Your task to perform on an android device: change alarm snooze length Image 0: 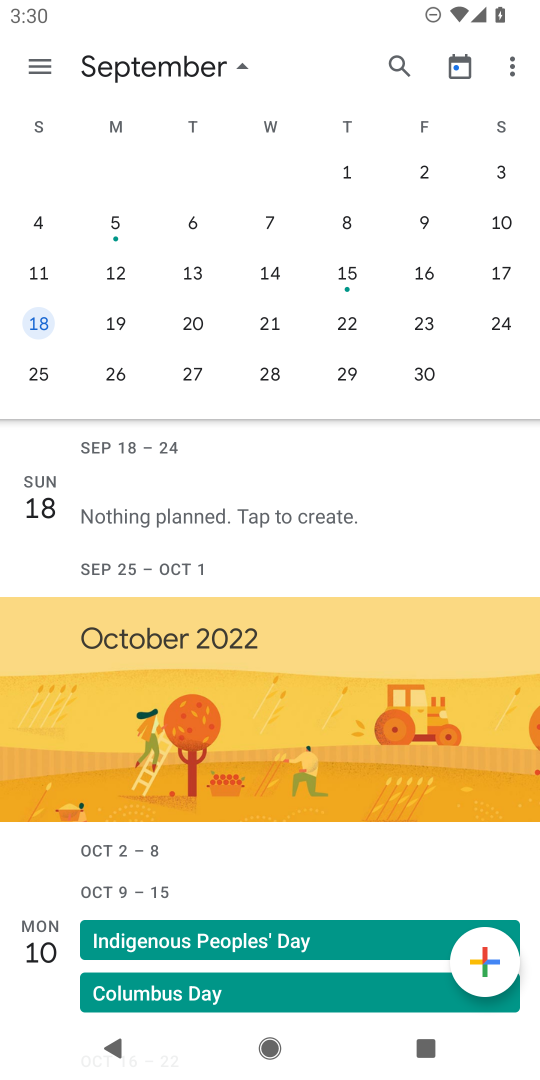
Step 0: press home button
Your task to perform on an android device: change alarm snooze length Image 1: 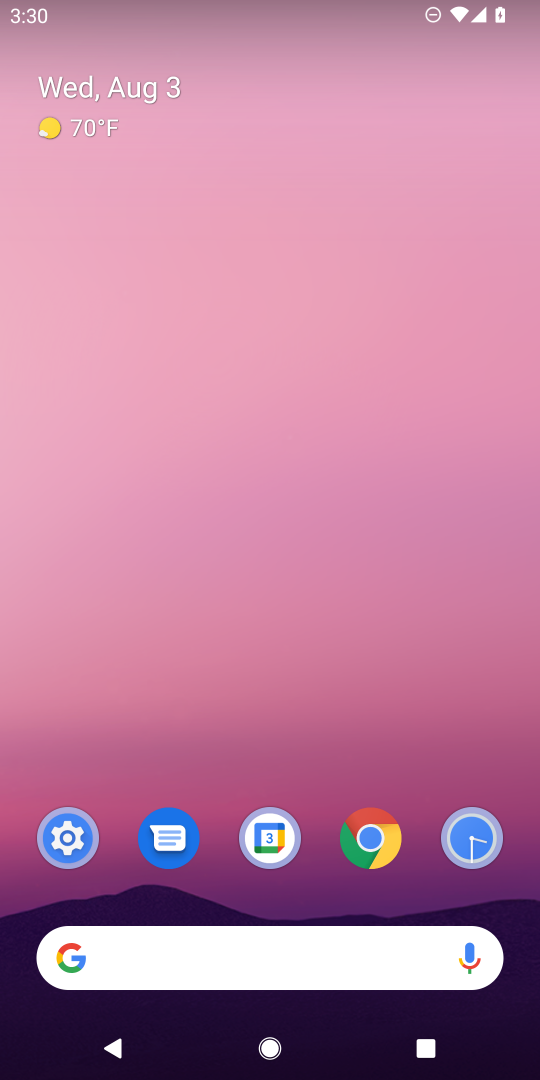
Step 1: click (475, 841)
Your task to perform on an android device: change alarm snooze length Image 2: 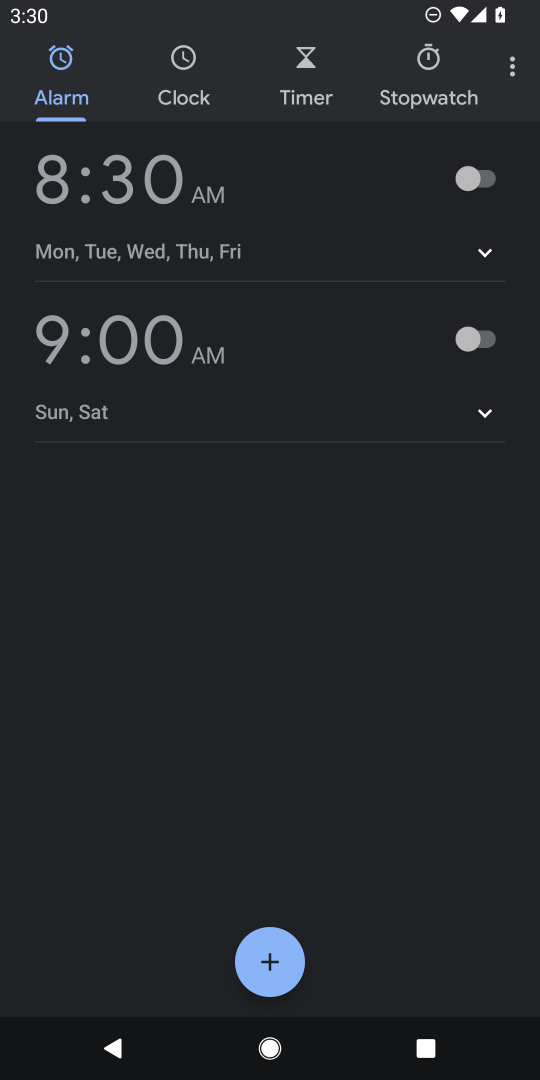
Step 2: click (494, 71)
Your task to perform on an android device: change alarm snooze length Image 3: 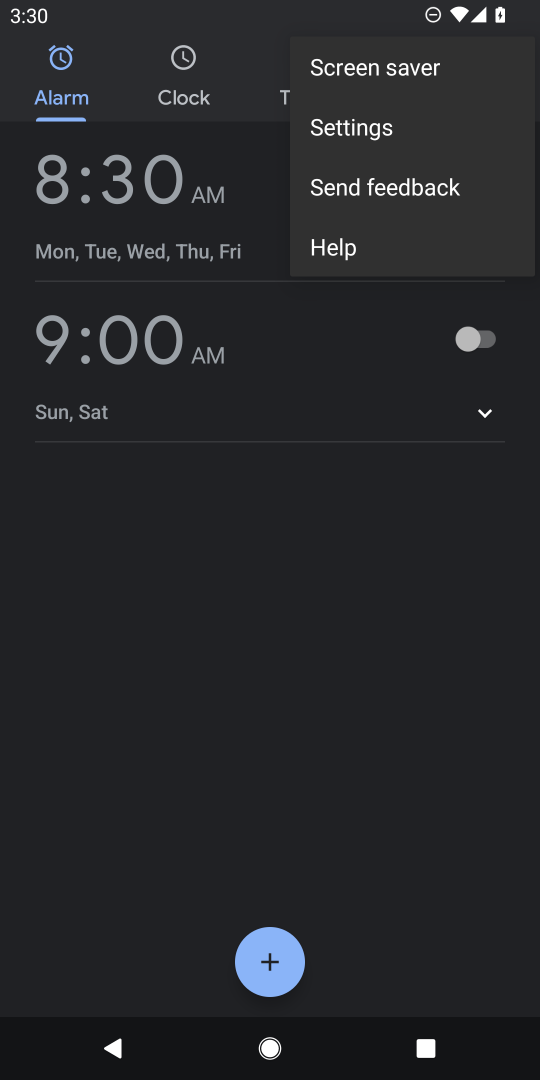
Step 3: click (417, 133)
Your task to perform on an android device: change alarm snooze length Image 4: 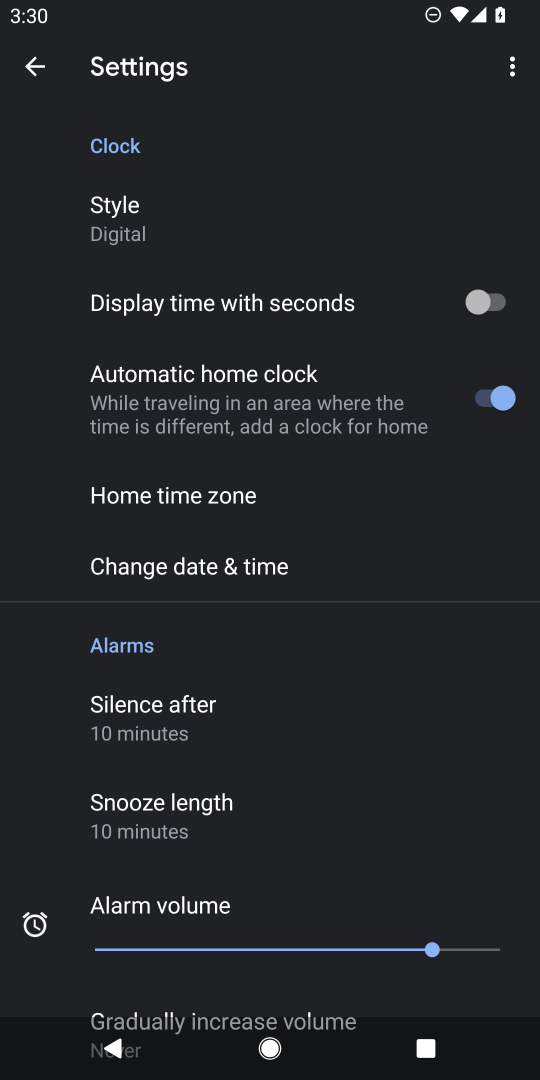
Step 4: click (167, 818)
Your task to perform on an android device: change alarm snooze length Image 5: 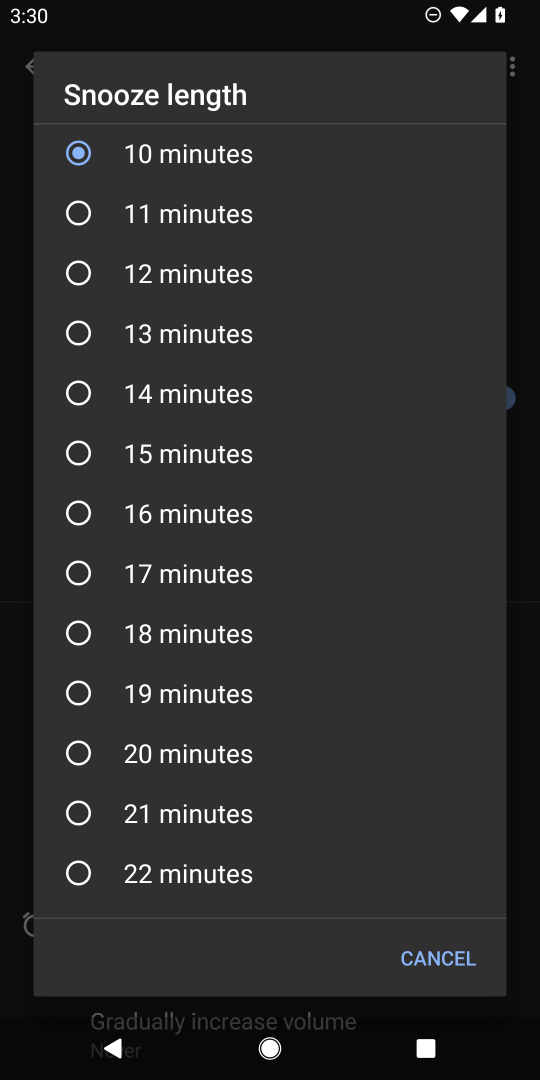
Step 5: click (211, 576)
Your task to perform on an android device: change alarm snooze length Image 6: 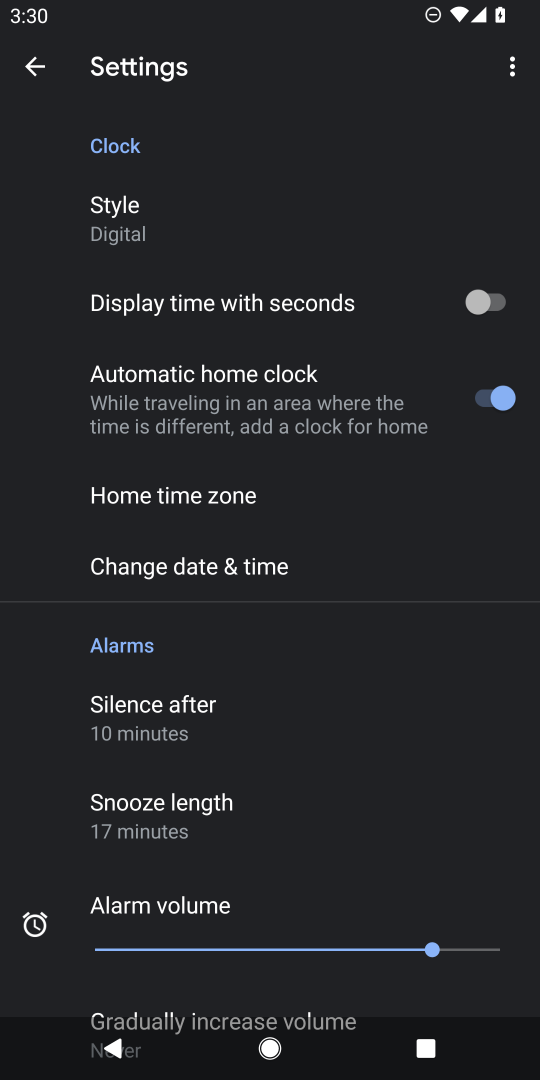
Step 6: task complete